Your task to perform on an android device: Add jbl flip 4 to the cart on target, then select checkout. Image 0: 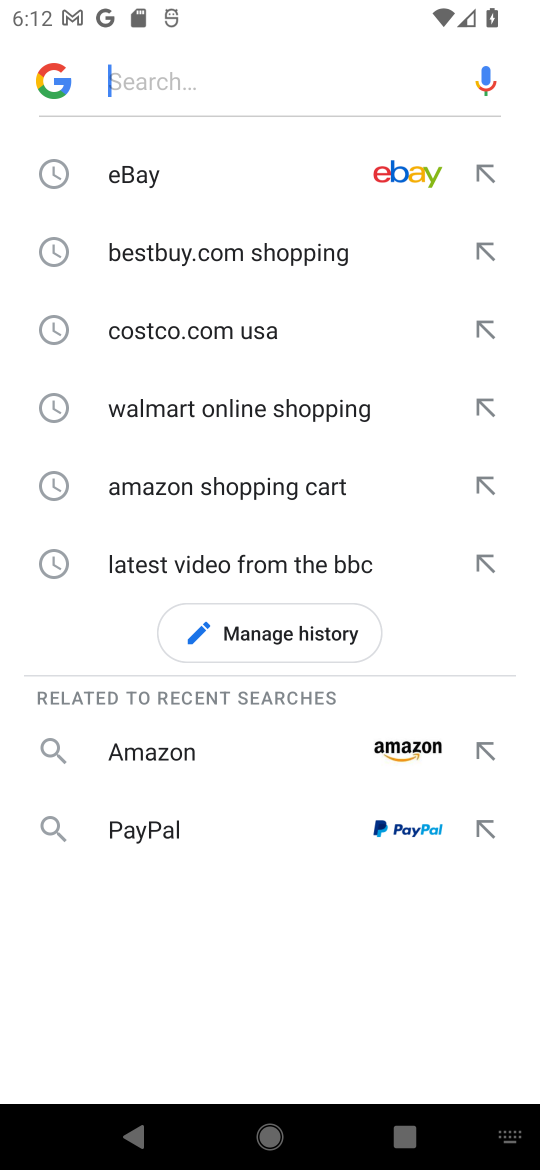
Step 0: type "target"
Your task to perform on an android device: Add jbl flip 4 to the cart on target, then select checkout. Image 1: 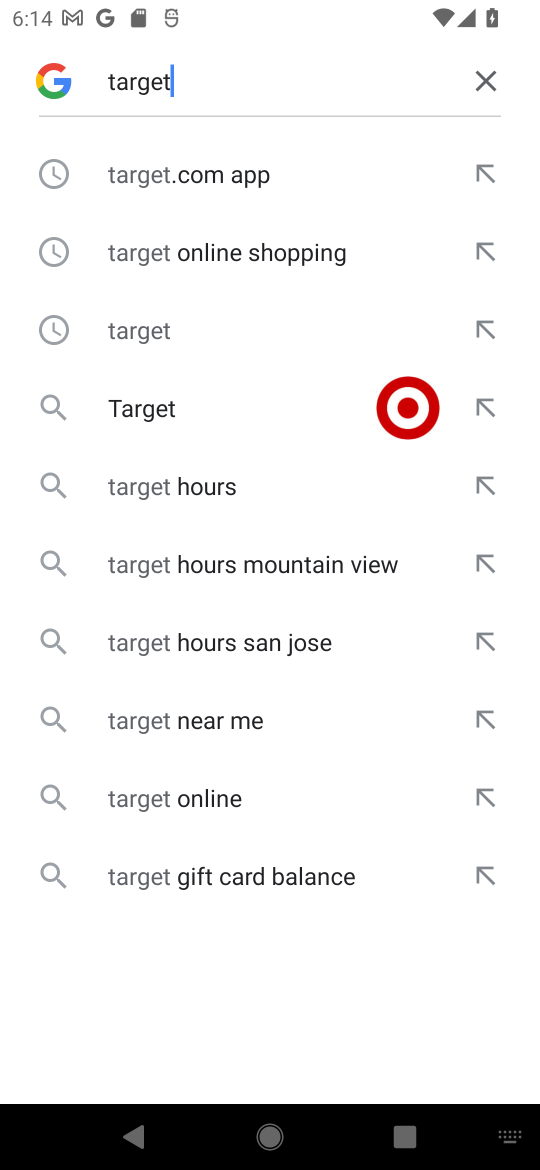
Step 1: click (185, 332)
Your task to perform on an android device: Add jbl flip 4 to the cart on target, then select checkout. Image 2: 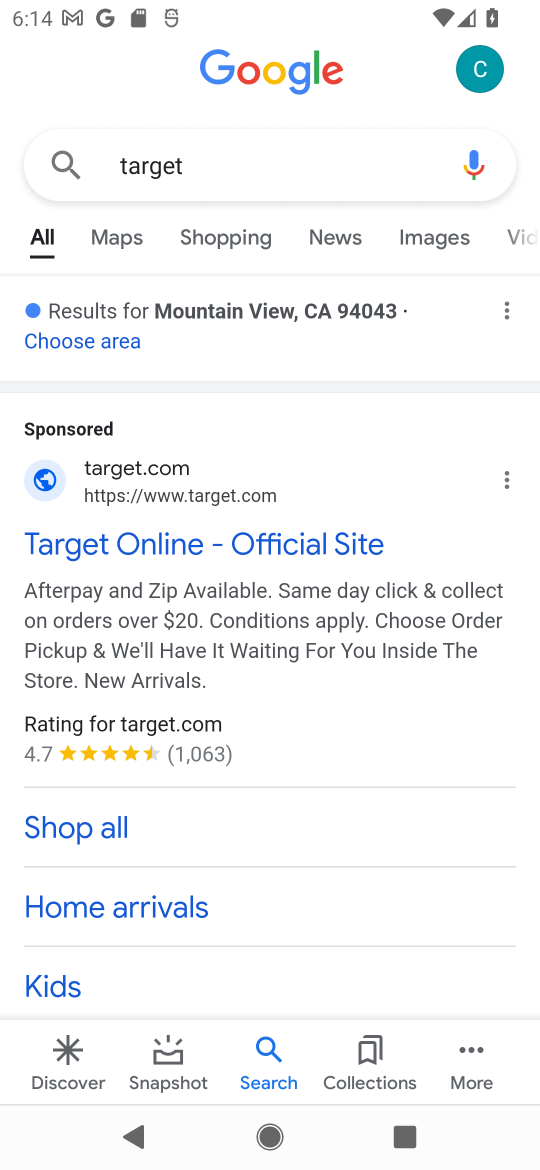
Step 2: click (163, 546)
Your task to perform on an android device: Add jbl flip 4 to the cart on target, then select checkout. Image 3: 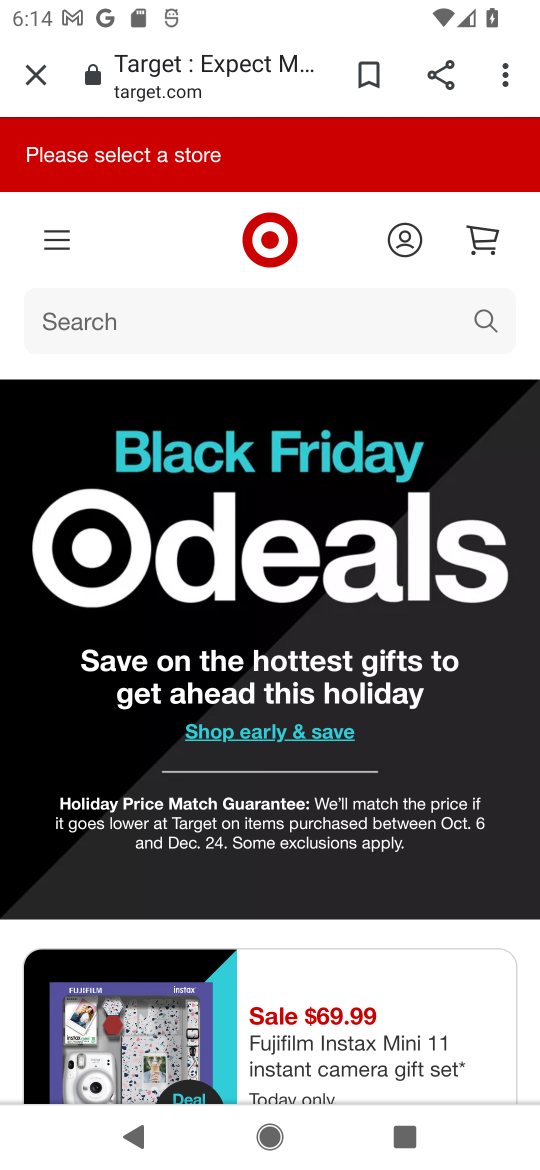
Step 3: click (285, 315)
Your task to perform on an android device: Add jbl flip 4 to the cart on target, then select checkout. Image 4: 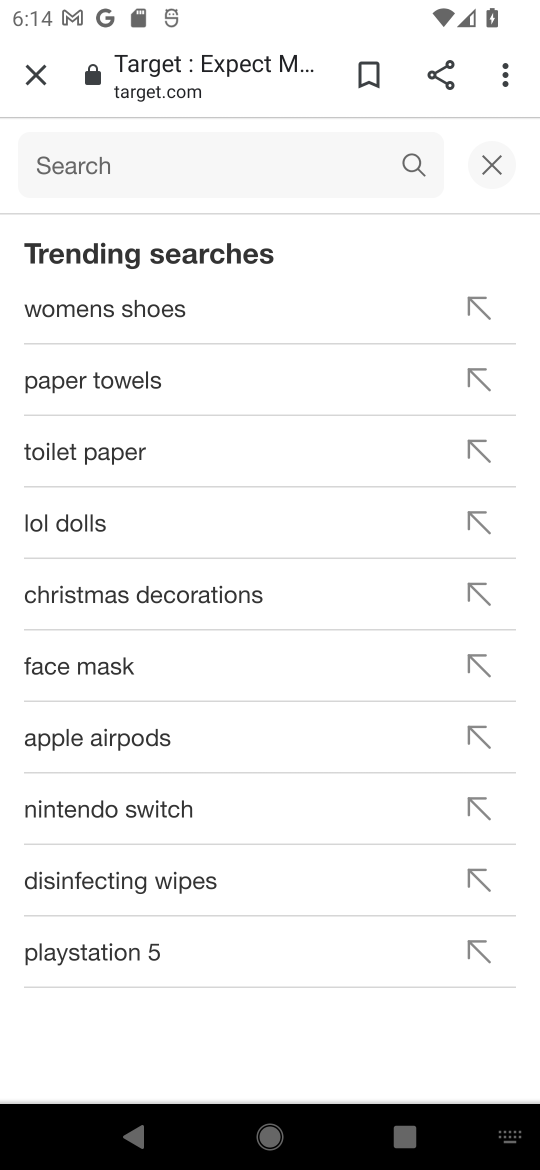
Step 4: type "jbl flip 4"
Your task to perform on an android device: Add jbl flip 4 to the cart on target, then select checkout. Image 5: 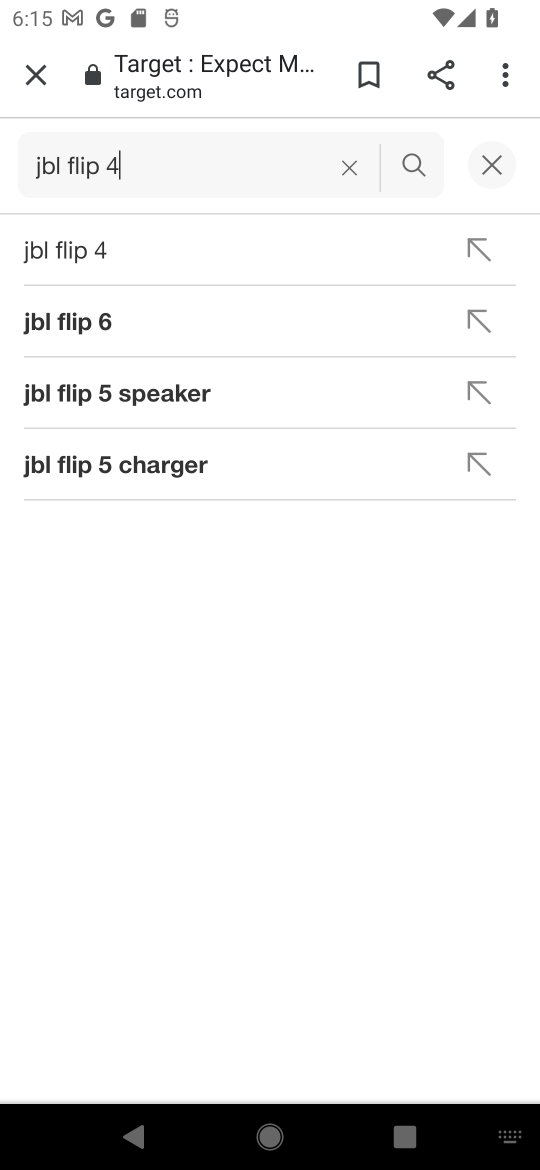
Step 5: click (84, 244)
Your task to perform on an android device: Add jbl flip 4 to the cart on target, then select checkout. Image 6: 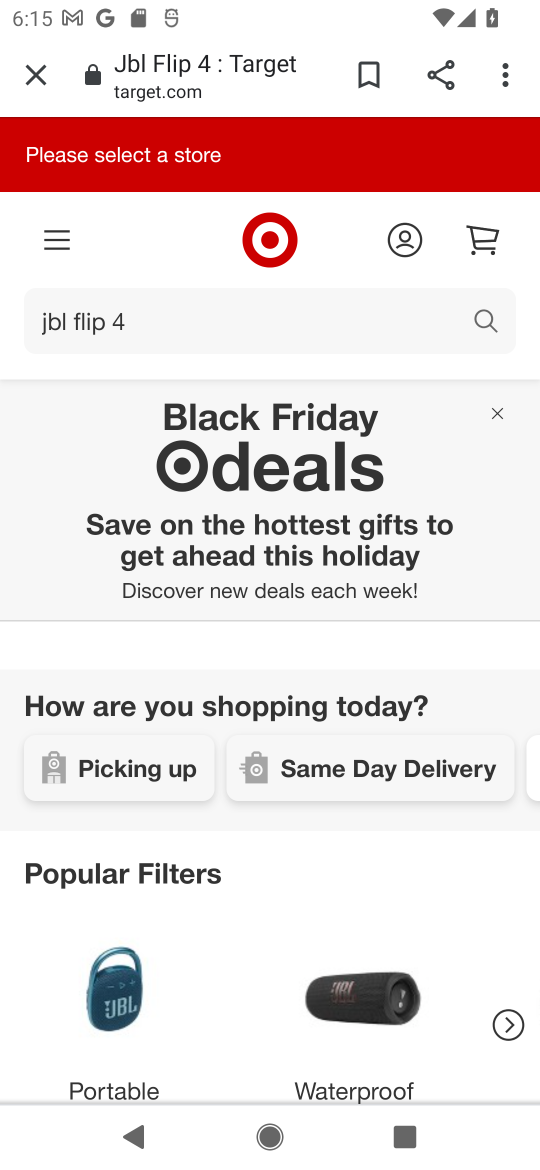
Step 6: drag from (300, 1046) to (269, 189)
Your task to perform on an android device: Add jbl flip 4 to the cart on target, then select checkout. Image 7: 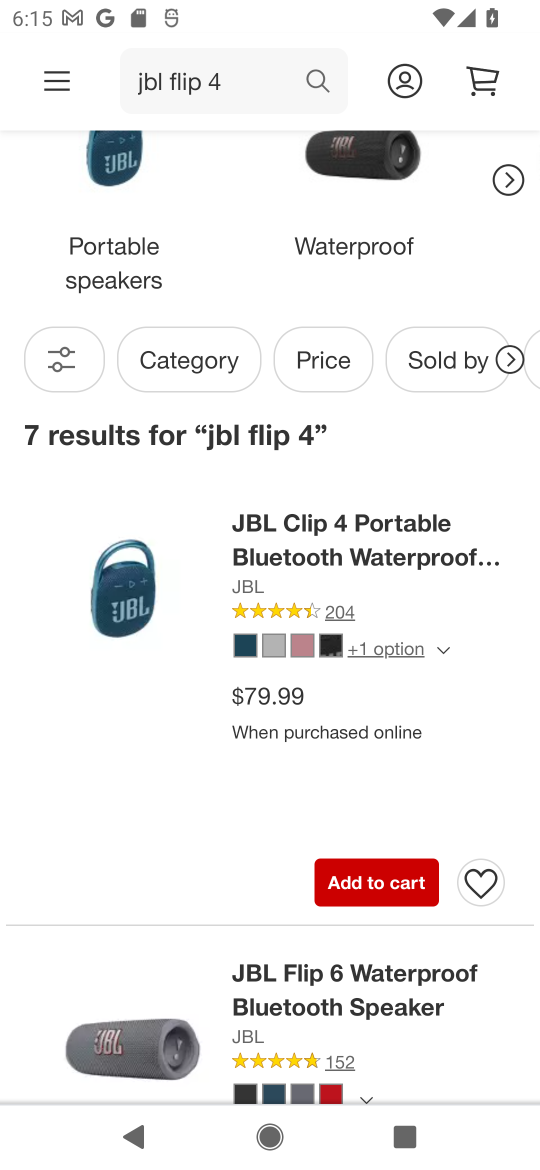
Step 7: click (359, 882)
Your task to perform on an android device: Add jbl flip 4 to the cart on target, then select checkout. Image 8: 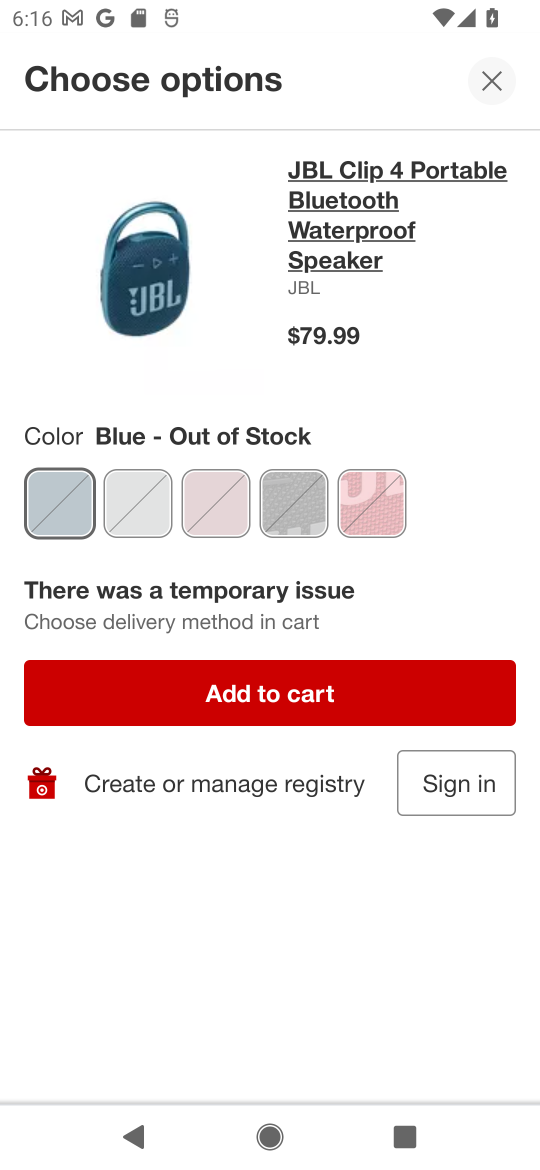
Step 8: click (253, 695)
Your task to perform on an android device: Add jbl flip 4 to the cart on target, then select checkout. Image 9: 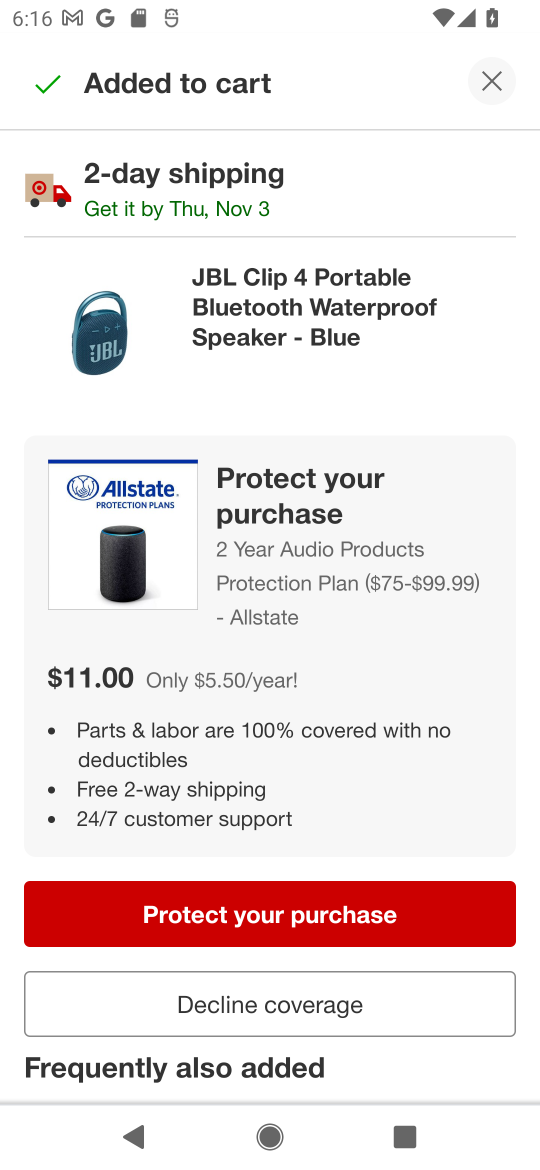
Step 9: task complete